Your task to perform on an android device: Open calendar and show me the fourth week of next month Image 0: 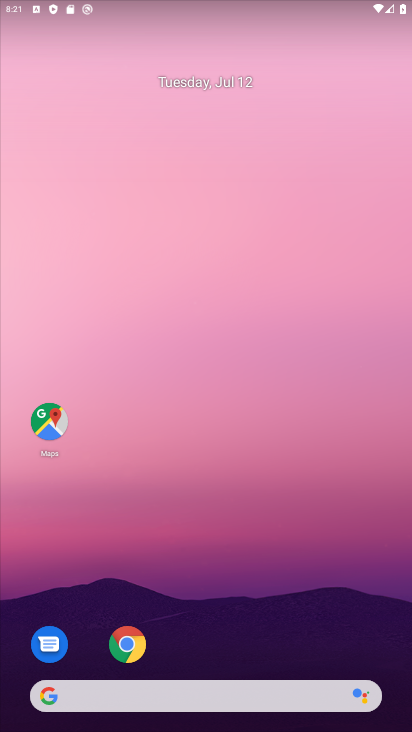
Step 0: drag from (365, 626) to (283, 64)
Your task to perform on an android device: Open calendar and show me the fourth week of next month Image 1: 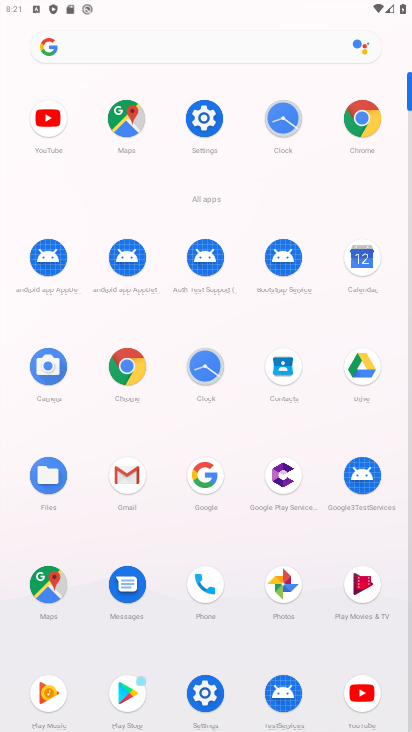
Step 1: click (361, 256)
Your task to perform on an android device: Open calendar and show me the fourth week of next month Image 2: 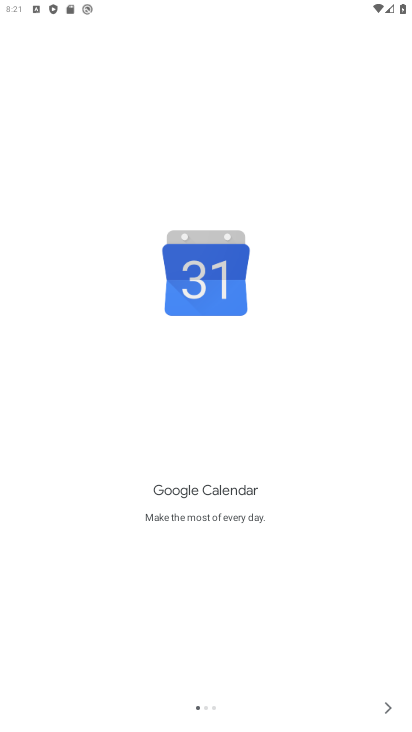
Step 2: click (386, 704)
Your task to perform on an android device: Open calendar and show me the fourth week of next month Image 3: 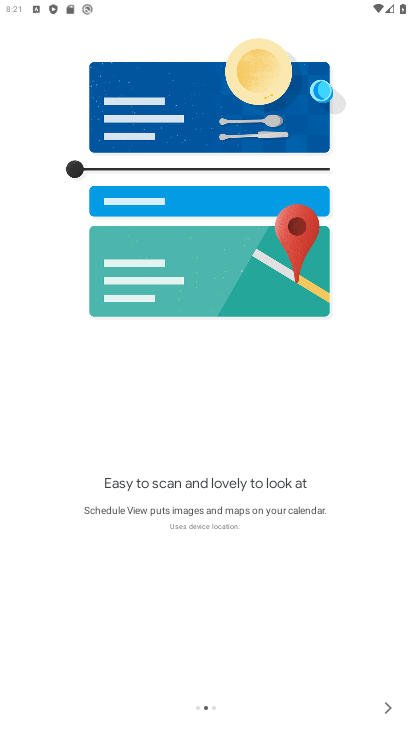
Step 3: click (388, 710)
Your task to perform on an android device: Open calendar and show me the fourth week of next month Image 4: 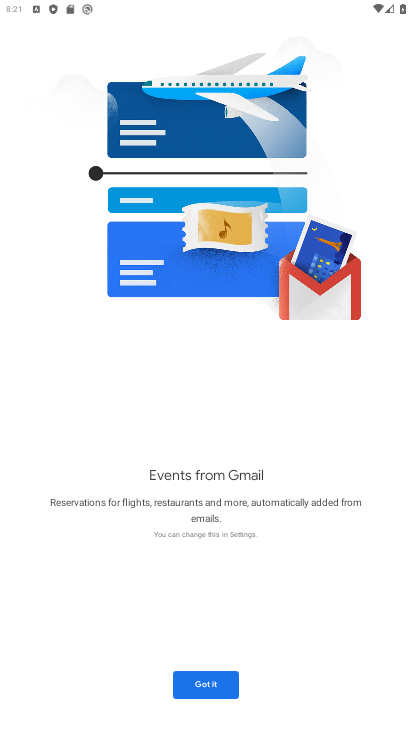
Step 4: click (199, 683)
Your task to perform on an android device: Open calendar and show me the fourth week of next month Image 5: 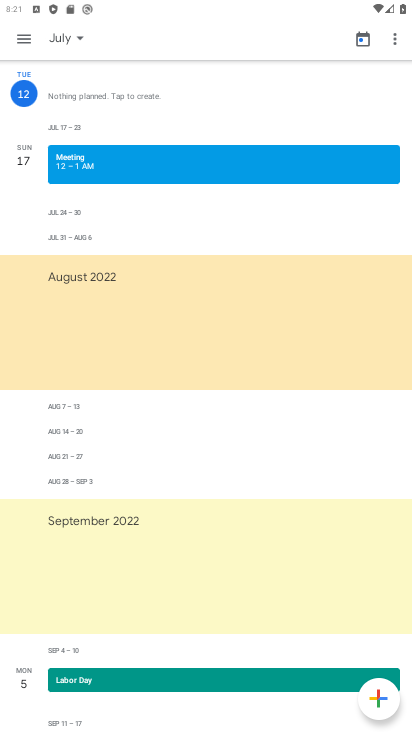
Step 5: click (24, 42)
Your task to perform on an android device: Open calendar and show me the fourth week of next month Image 6: 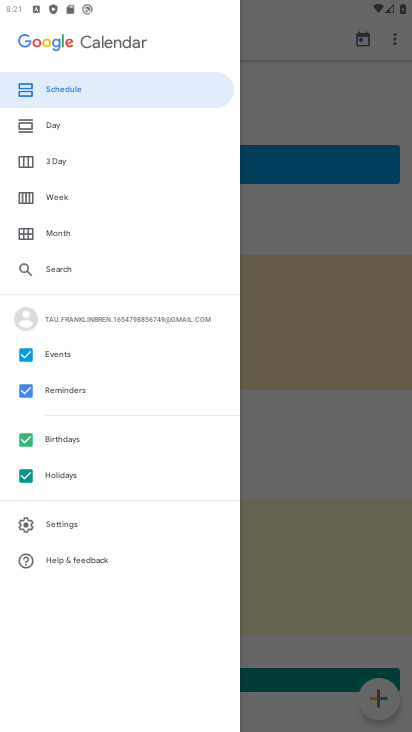
Step 6: click (51, 195)
Your task to perform on an android device: Open calendar and show me the fourth week of next month Image 7: 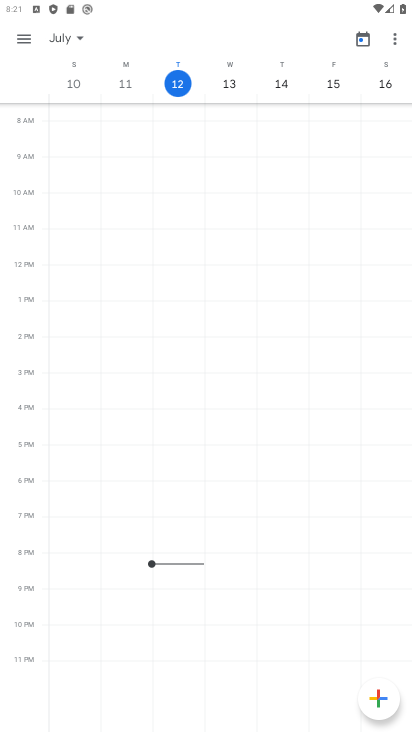
Step 7: click (77, 40)
Your task to perform on an android device: Open calendar and show me the fourth week of next month Image 8: 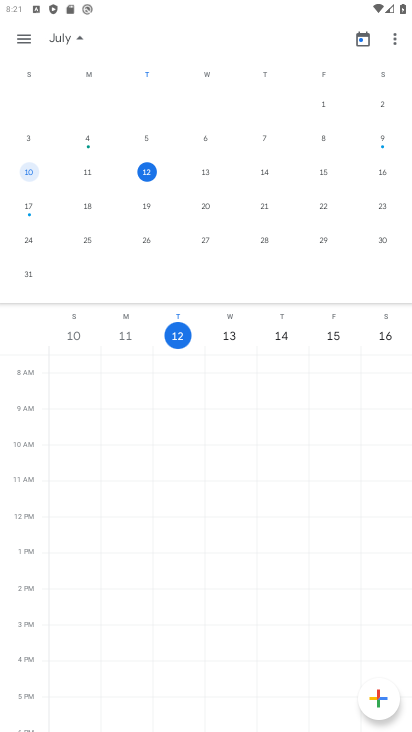
Step 8: drag from (375, 204) to (18, 174)
Your task to perform on an android device: Open calendar and show me the fourth week of next month Image 9: 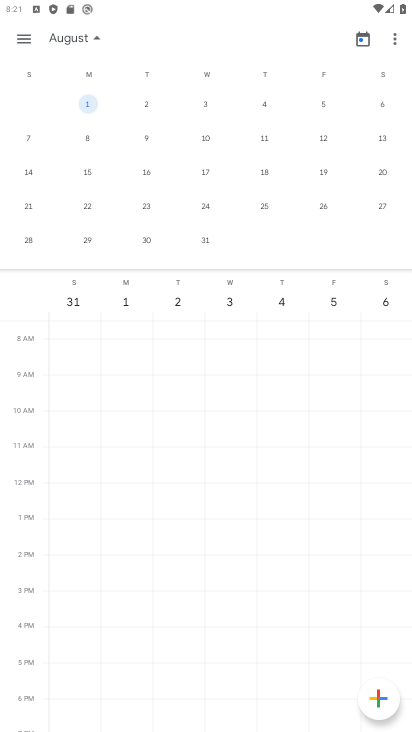
Step 9: click (25, 245)
Your task to perform on an android device: Open calendar and show me the fourth week of next month Image 10: 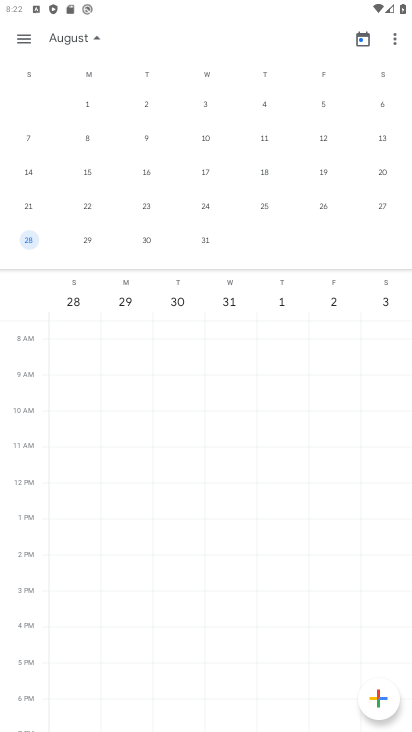
Step 10: task complete